Your task to perform on an android device: add a contact in the contacts app Image 0: 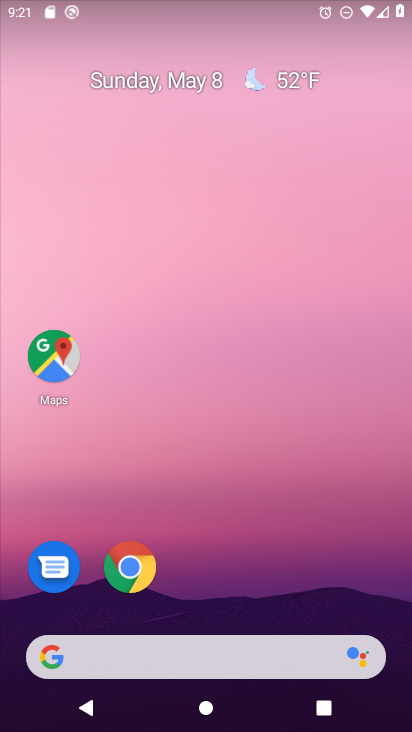
Step 0: drag from (287, 591) to (246, 125)
Your task to perform on an android device: add a contact in the contacts app Image 1: 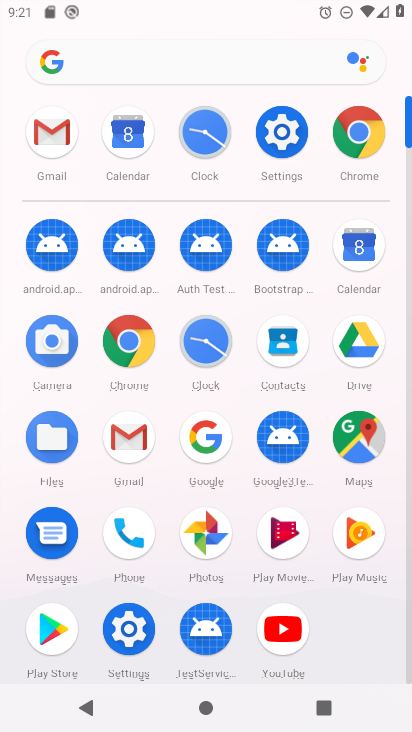
Step 1: click (125, 552)
Your task to perform on an android device: add a contact in the contacts app Image 2: 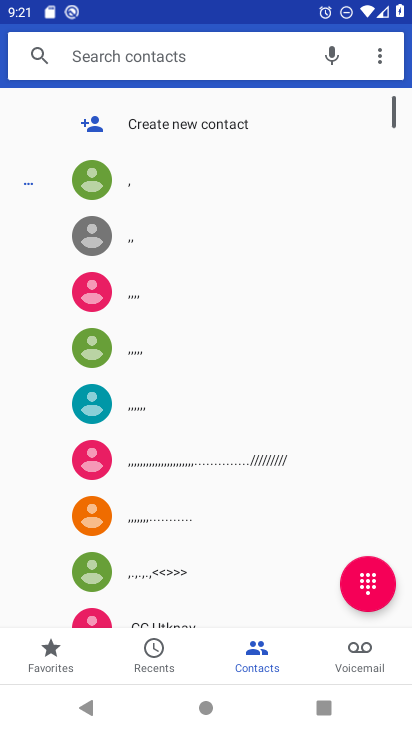
Step 2: click (141, 118)
Your task to perform on an android device: add a contact in the contacts app Image 3: 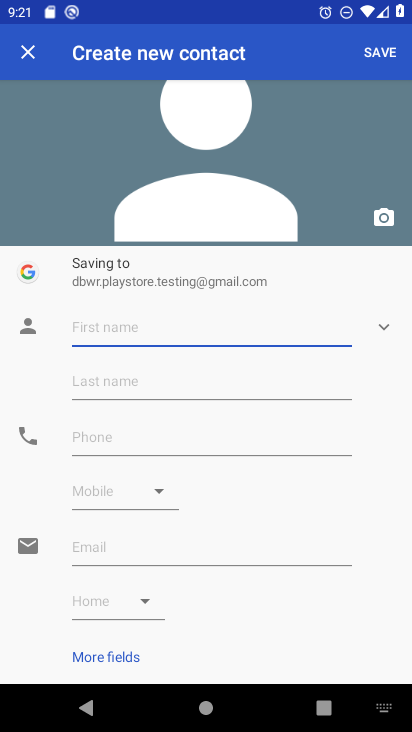
Step 3: type "efgg"
Your task to perform on an android device: add a contact in the contacts app Image 4: 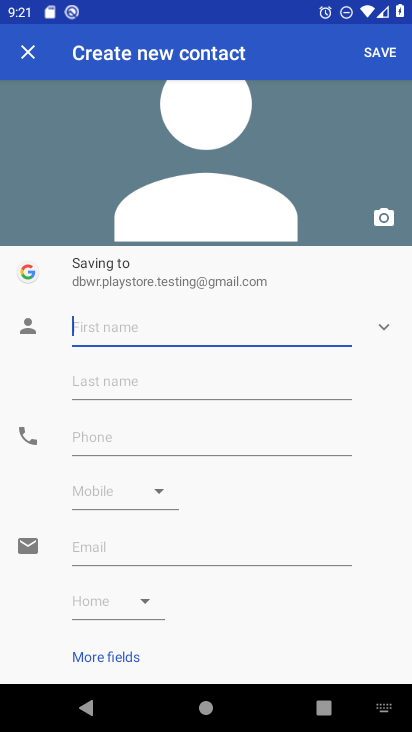
Step 4: click (108, 371)
Your task to perform on an android device: add a contact in the contacts app Image 5: 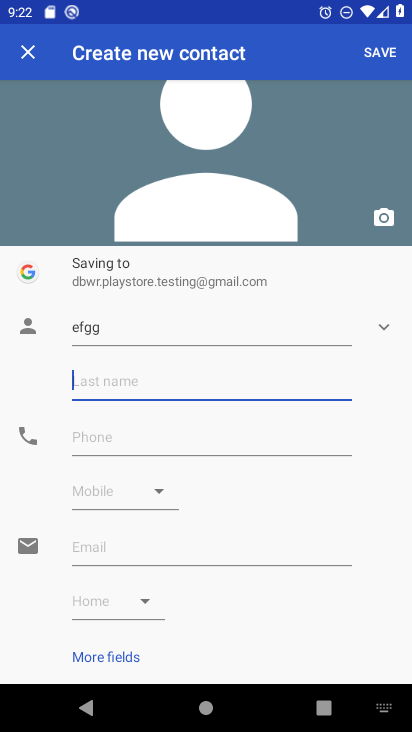
Step 5: type "4568987654"
Your task to perform on an android device: add a contact in the contacts app Image 6: 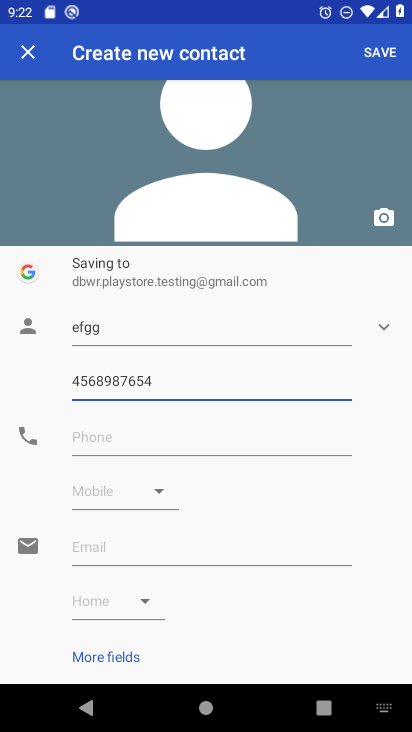
Step 6: click (366, 47)
Your task to perform on an android device: add a contact in the contacts app Image 7: 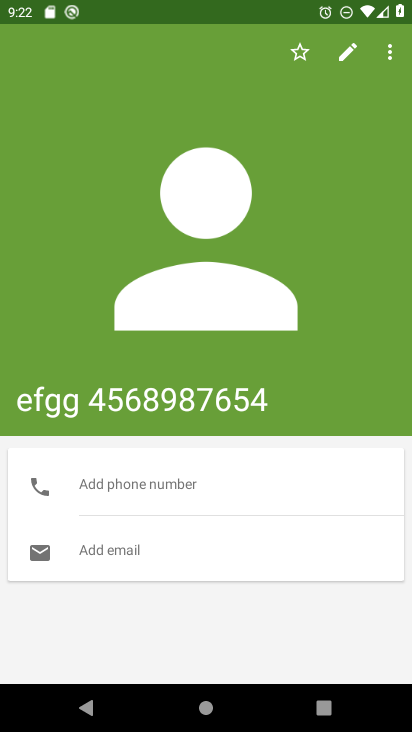
Step 7: task complete